Your task to perform on an android device: change the clock style Image 0: 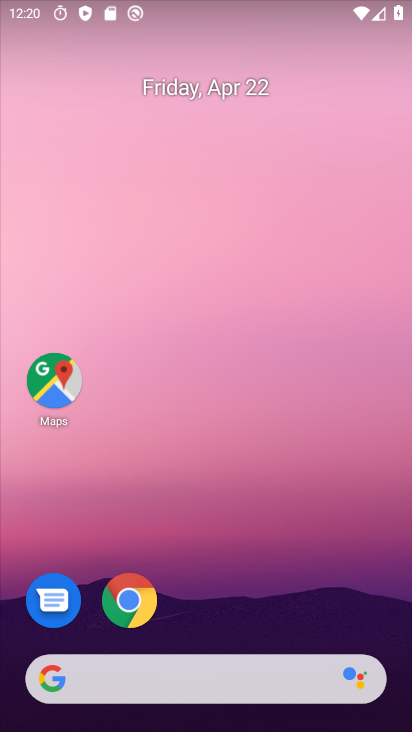
Step 0: drag from (221, 469) to (326, 40)
Your task to perform on an android device: change the clock style Image 1: 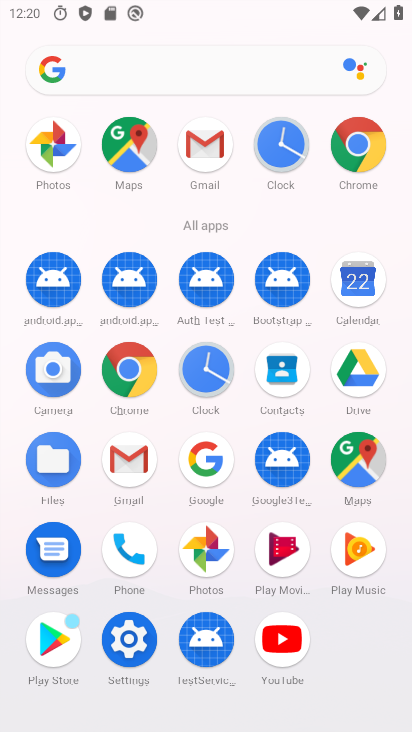
Step 1: click (276, 131)
Your task to perform on an android device: change the clock style Image 2: 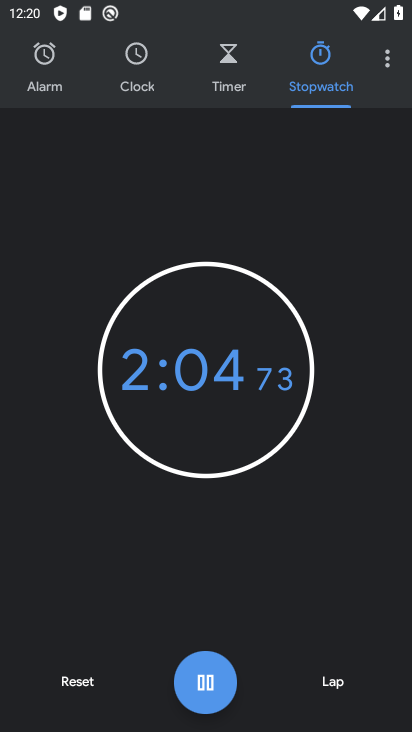
Step 2: click (392, 58)
Your task to perform on an android device: change the clock style Image 3: 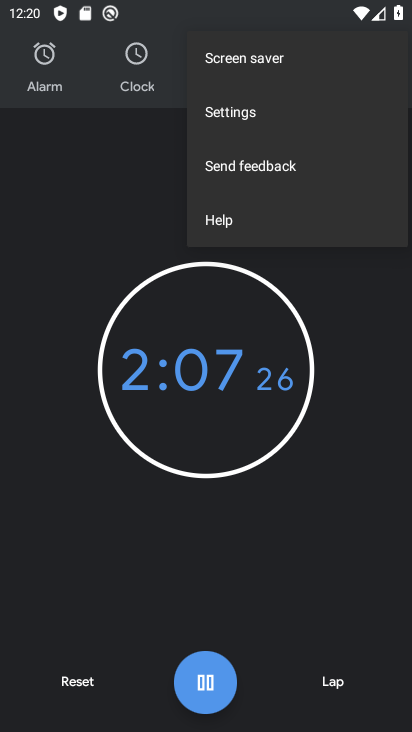
Step 3: click (257, 109)
Your task to perform on an android device: change the clock style Image 4: 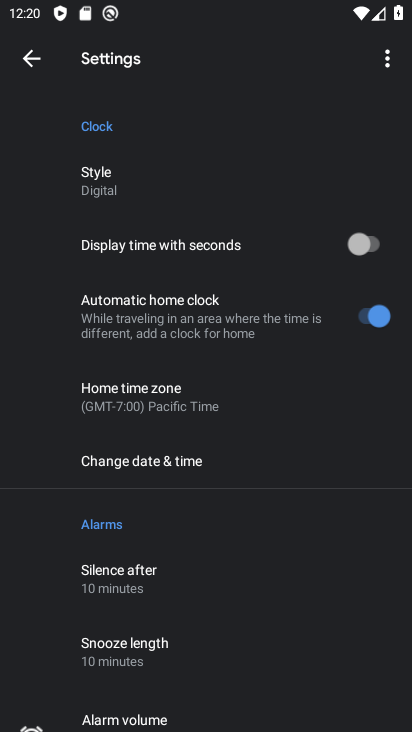
Step 4: click (110, 179)
Your task to perform on an android device: change the clock style Image 5: 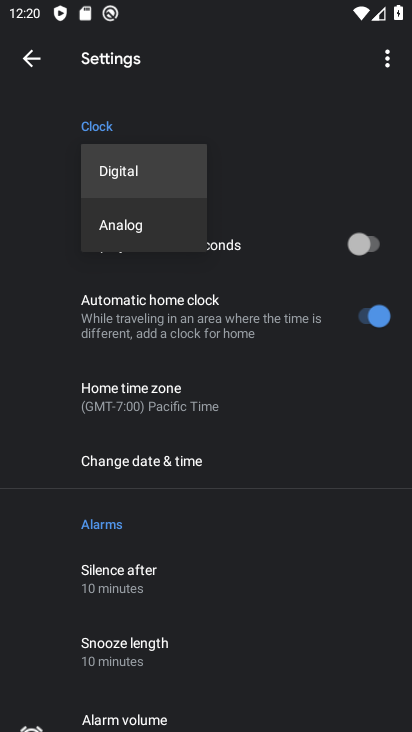
Step 5: click (157, 233)
Your task to perform on an android device: change the clock style Image 6: 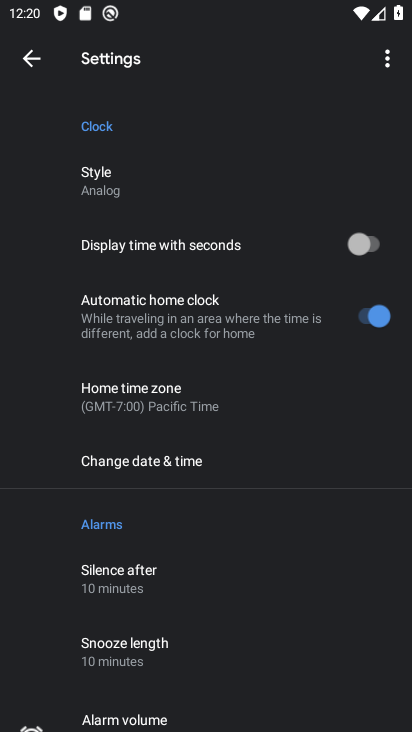
Step 6: task complete